Your task to perform on an android device: Go to privacy settings Image 0: 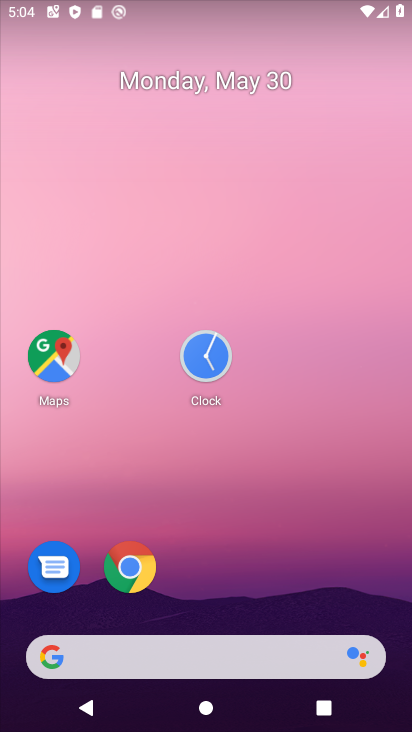
Step 0: drag from (259, 703) to (135, 146)
Your task to perform on an android device: Go to privacy settings Image 1: 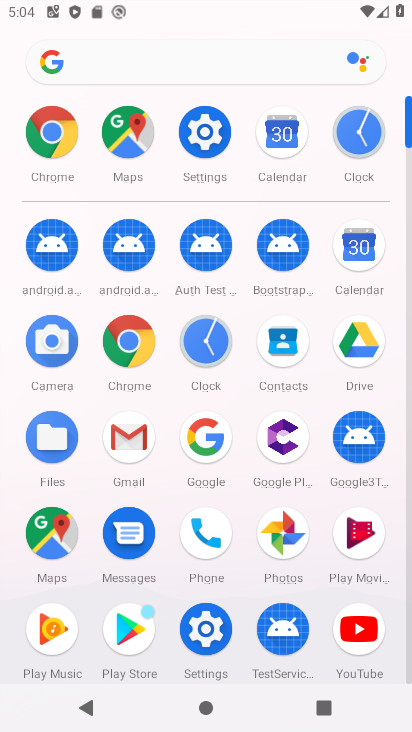
Step 1: click (198, 127)
Your task to perform on an android device: Go to privacy settings Image 2: 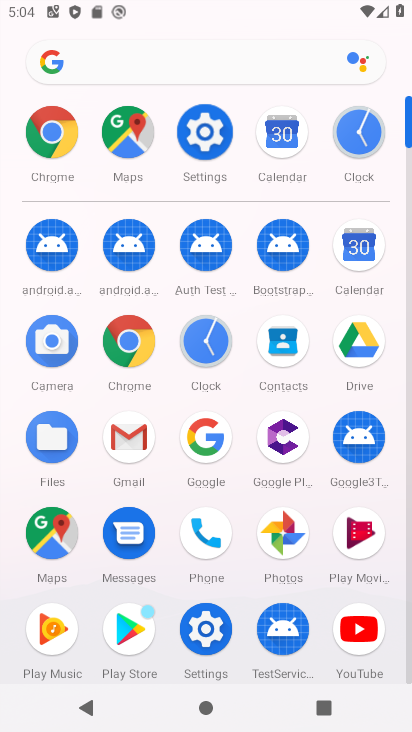
Step 2: click (200, 128)
Your task to perform on an android device: Go to privacy settings Image 3: 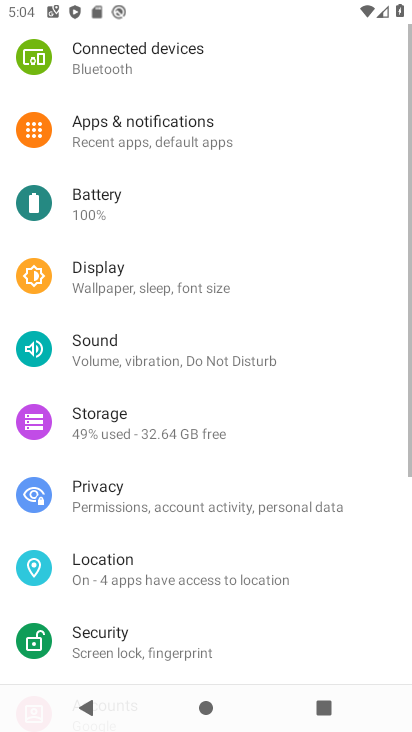
Step 3: click (206, 125)
Your task to perform on an android device: Go to privacy settings Image 4: 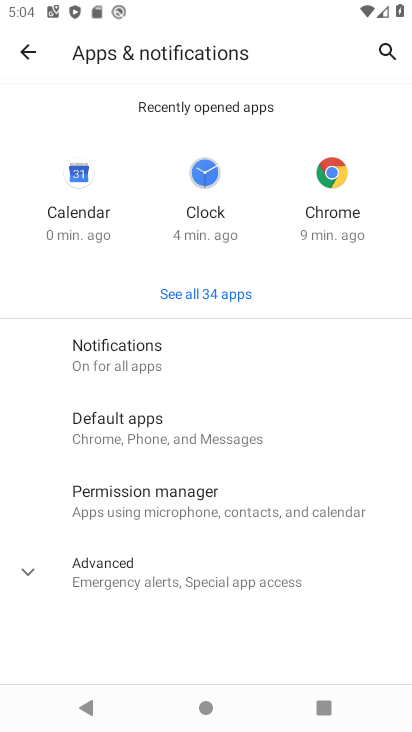
Step 4: click (20, 51)
Your task to perform on an android device: Go to privacy settings Image 5: 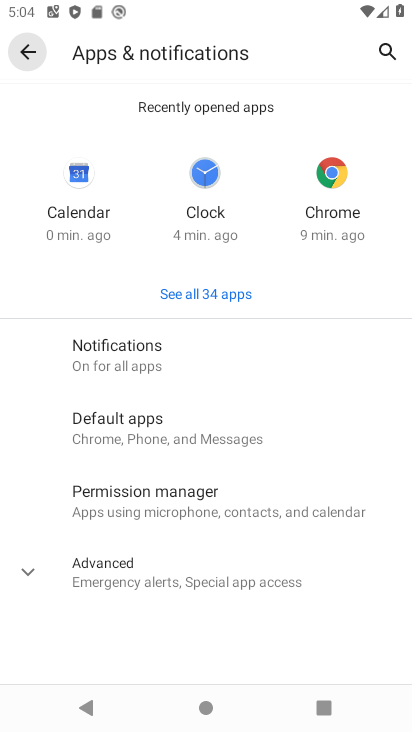
Step 5: click (21, 52)
Your task to perform on an android device: Go to privacy settings Image 6: 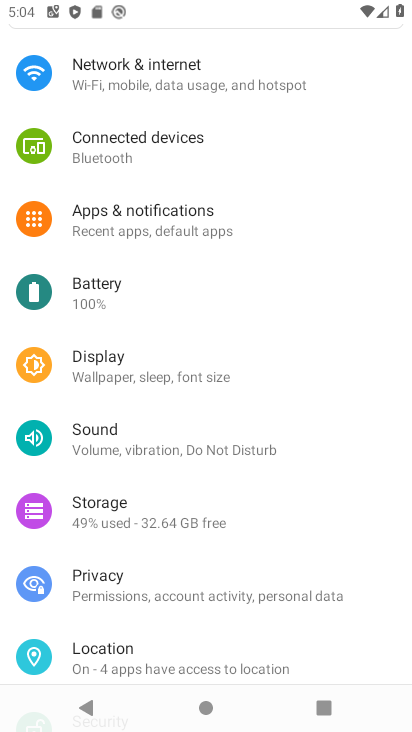
Step 6: click (97, 580)
Your task to perform on an android device: Go to privacy settings Image 7: 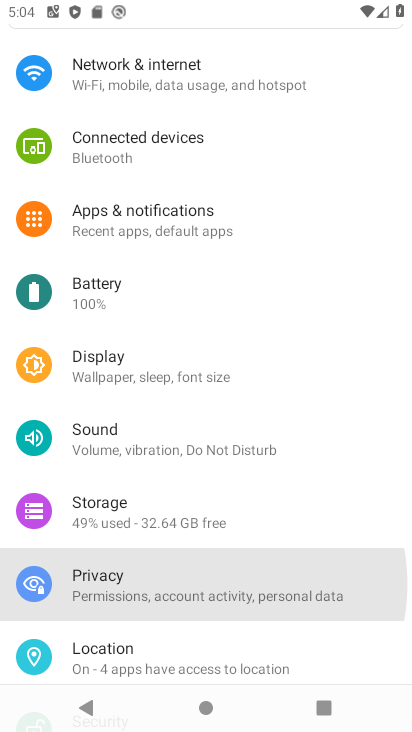
Step 7: click (97, 581)
Your task to perform on an android device: Go to privacy settings Image 8: 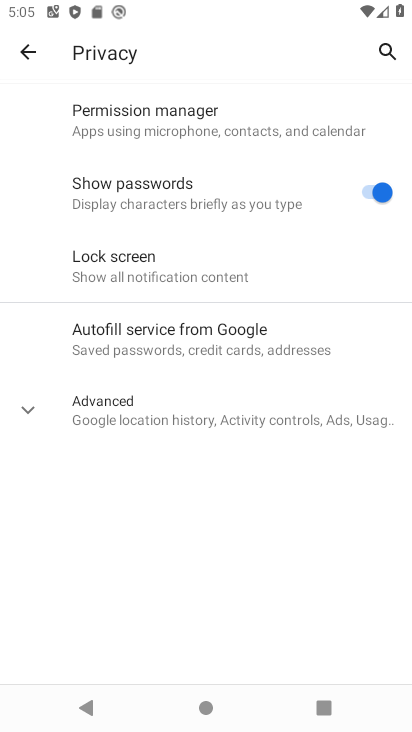
Step 8: task complete